Your task to perform on an android device: toggle translation in the chrome app Image 0: 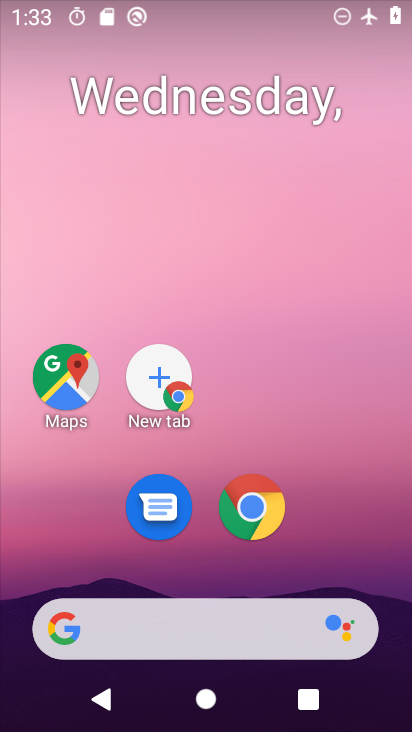
Step 0: drag from (373, 521) to (410, 231)
Your task to perform on an android device: toggle translation in the chrome app Image 1: 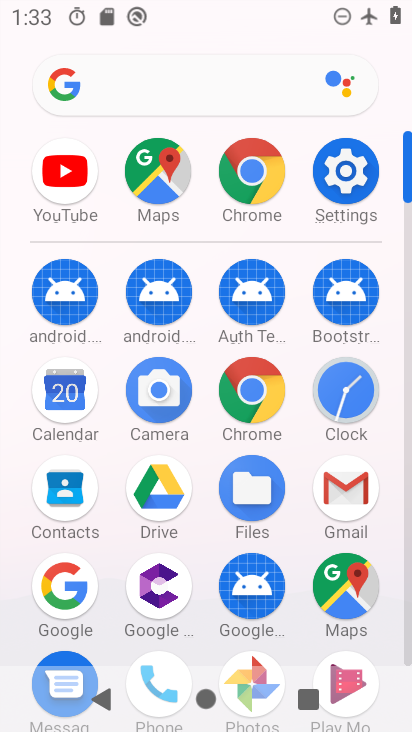
Step 1: click (268, 389)
Your task to perform on an android device: toggle translation in the chrome app Image 2: 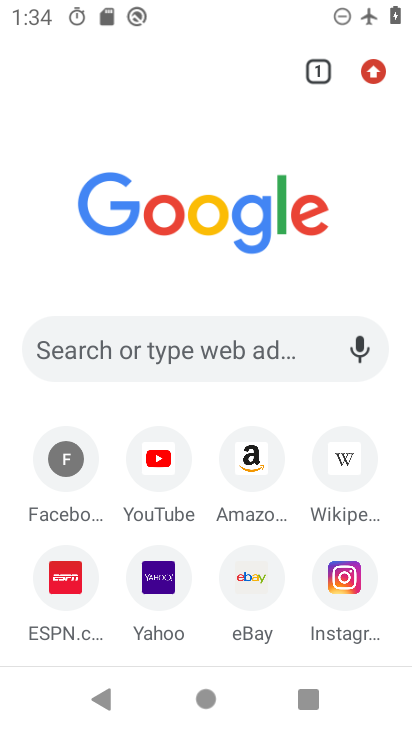
Step 2: click (362, 74)
Your task to perform on an android device: toggle translation in the chrome app Image 3: 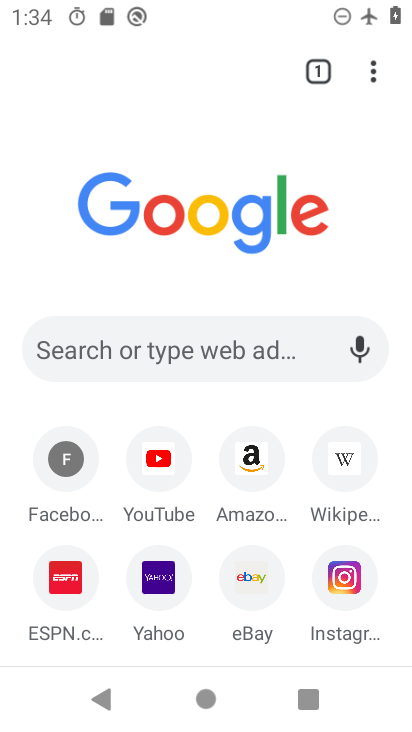
Step 3: drag from (373, 75) to (97, 495)
Your task to perform on an android device: toggle translation in the chrome app Image 4: 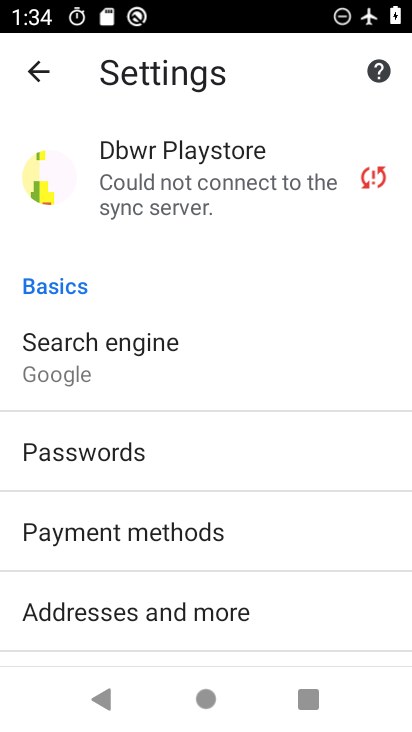
Step 4: drag from (161, 556) to (208, 285)
Your task to perform on an android device: toggle translation in the chrome app Image 5: 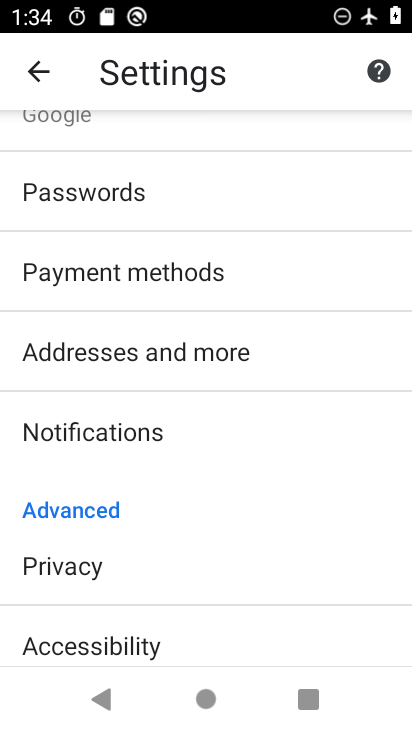
Step 5: drag from (224, 537) to (326, 126)
Your task to perform on an android device: toggle translation in the chrome app Image 6: 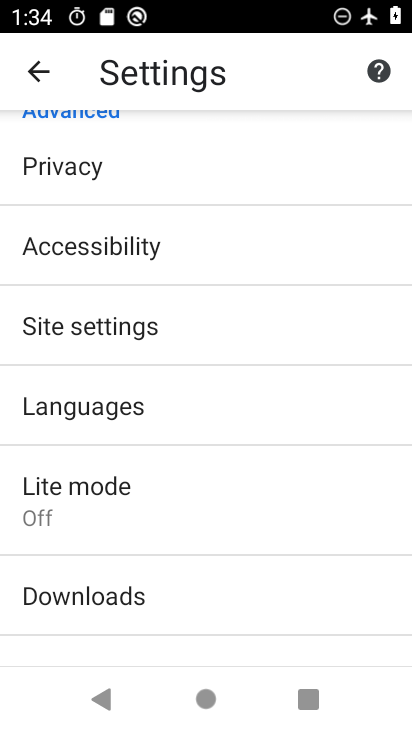
Step 6: click (198, 397)
Your task to perform on an android device: toggle translation in the chrome app Image 7: 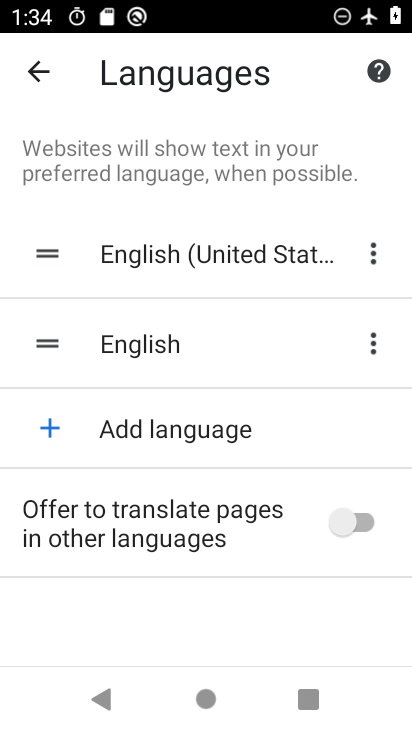
Step 7: click (366, 515)
Your task to perform on an android device: toggle translation in the chrome app Image 8: 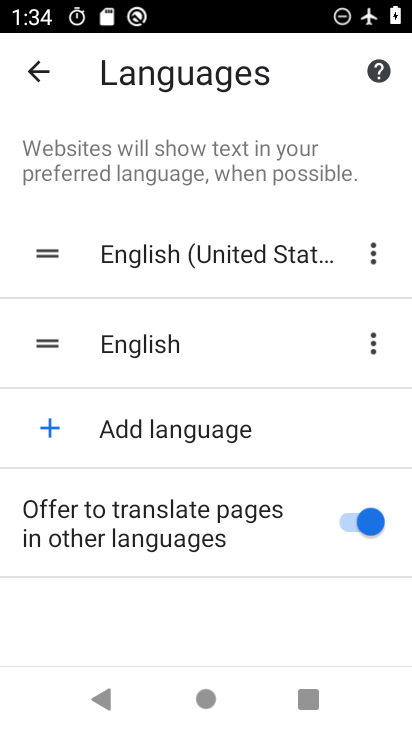
Step 8: task complete